Your task to perform on an android device: Open Youtube and go to the subscriptions tab Image 0: 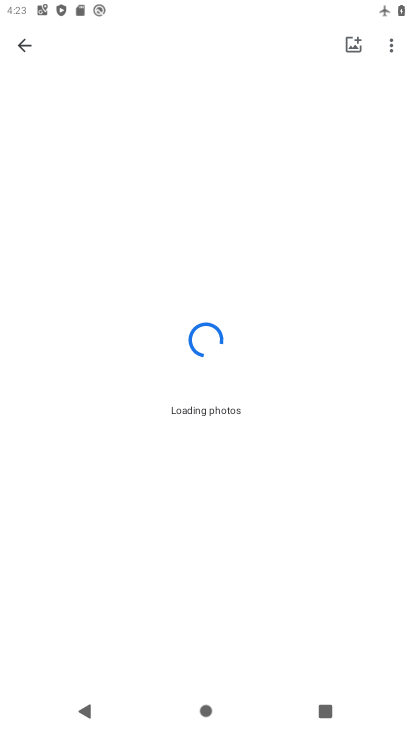
Step 0: press home button
Your task to perform on an android device: Open Youtube and go to the subscriptions tab Image 1: 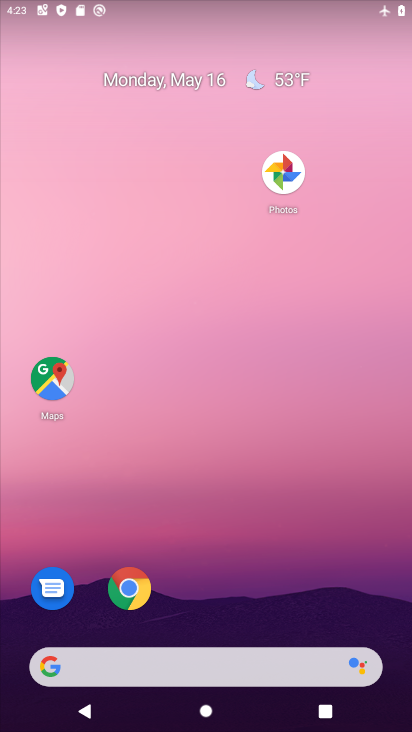
Step 1: click (233, 212)
Your task to perform on an android device: Open Youtube and go to the subscriptions tab Image 2: 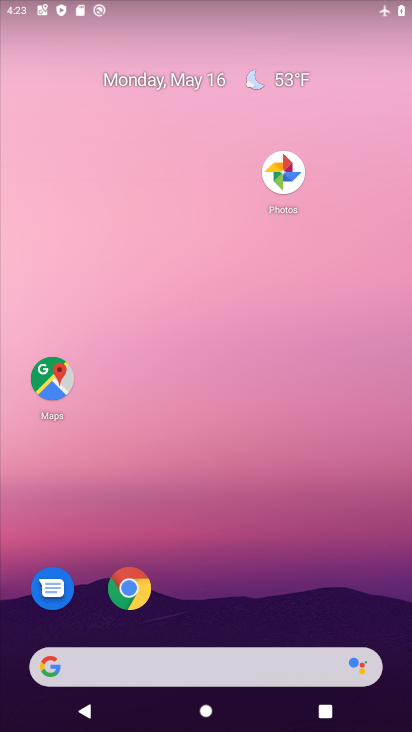
Step 2: drag from (208, 453) to (224, 260)
Your task to perform on an android device: Open Youtube and go to the subscriptions tab Image 3: 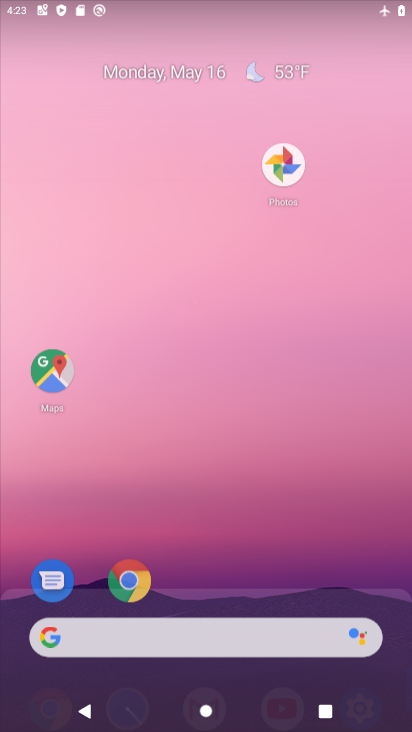
Step 3: drag from (241, 594) to (227, 9)
Your task to perform on an android device: Open Youtube and go to the subscriptions tab Image 4: 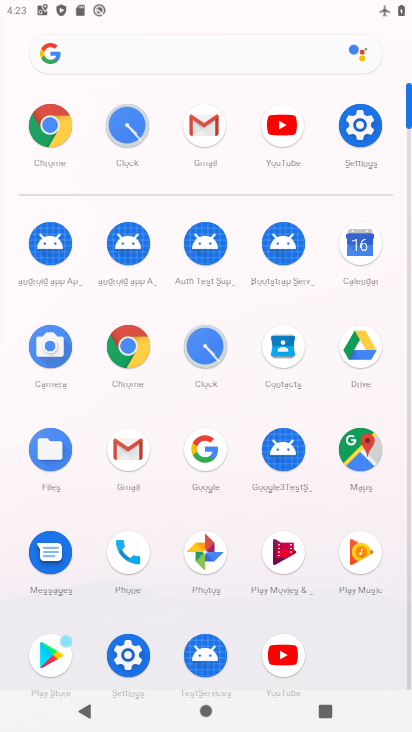
Step 4: click (282, 656)
Your task to perform on an android device: Open Youtube and go to the subscriptions tab Image 5: 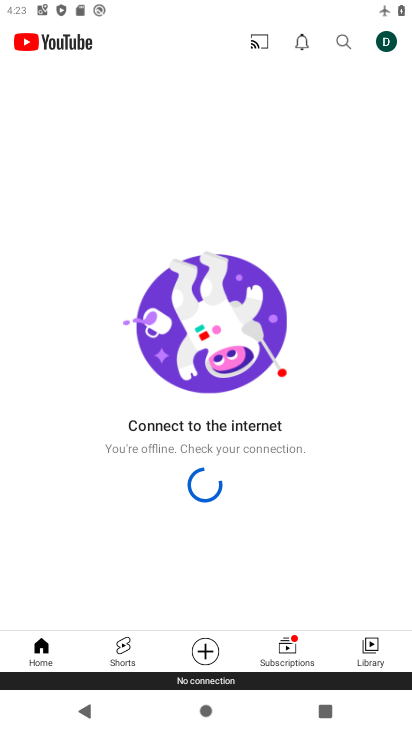
Step 5: click (275, 659)
Your task to perform on an android device: Open Youtube and go to the subscriptions tab Image 6: 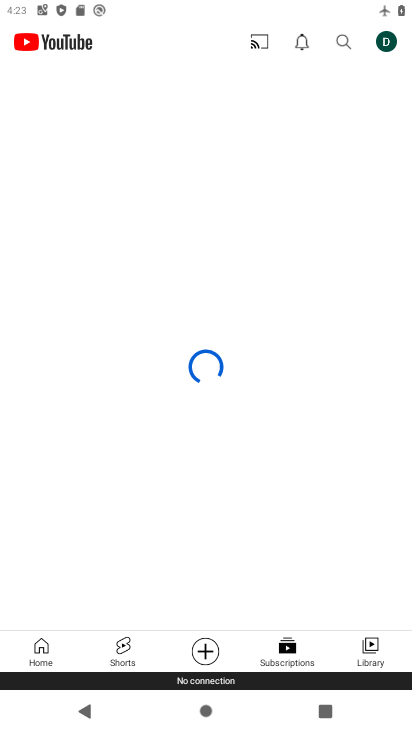
Step 6: drag from (257, 9) to (274, 672)
Your task to perform on an android device: Open Youtube and go to the subscriptions tab Image 7: 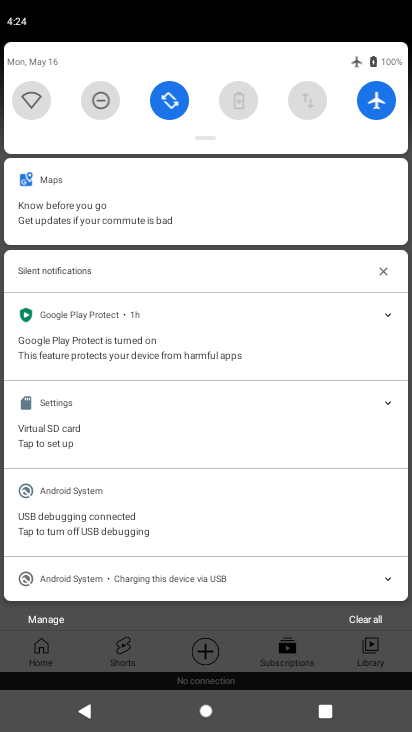
Step 7: click (367, 105)
Your task to perform on an android device: Open Youtube and go to the subscriptions tab Image 8: 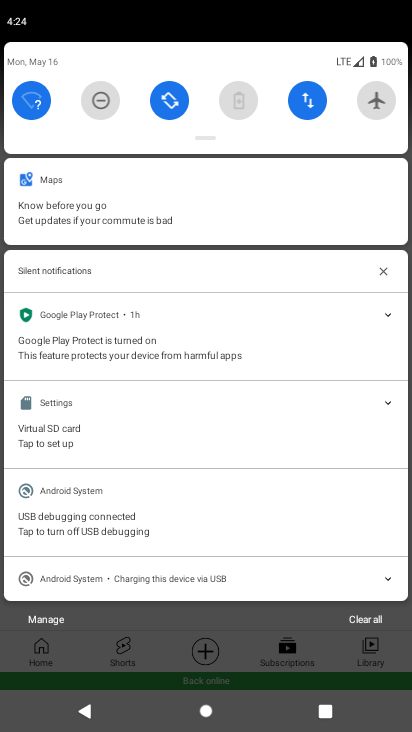
Step 8: task complete